Your task to perform on an android device: Open Google Chrome Image 0: 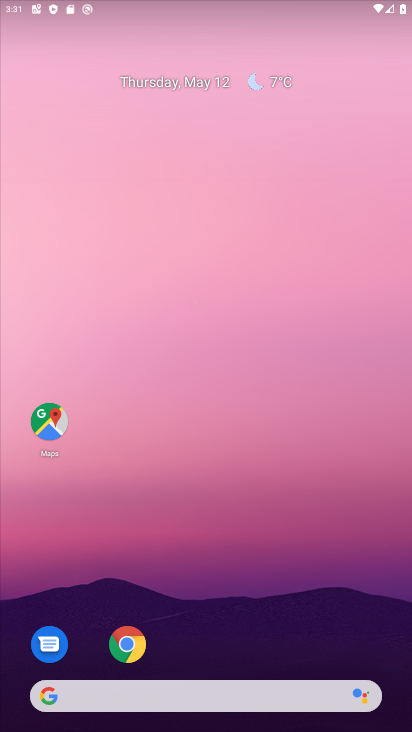
Step 0: drag from (235, 634) to (239, 90)
Your task to perform on an android device: Open Google Chrome Image 1: 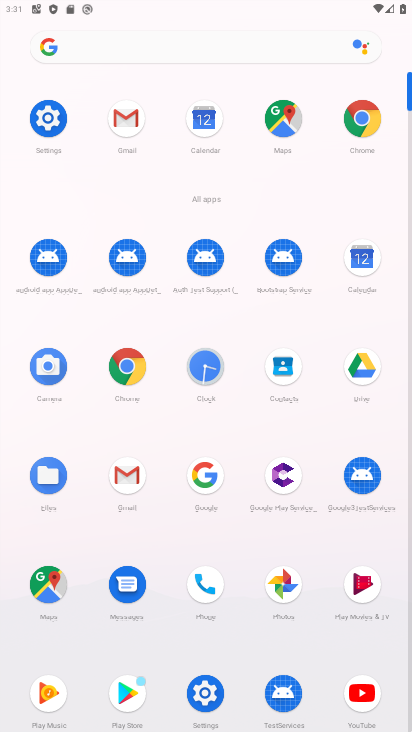
Step 1: click (360, 113)
Your task to perform on an android device: Open Google Chrome Image 2: 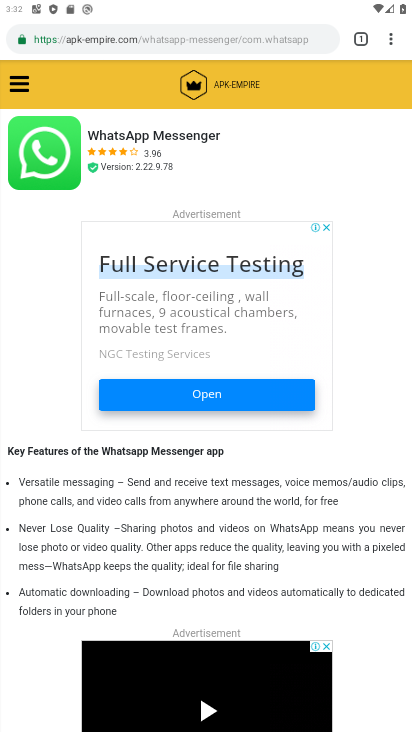
Step 2: click (356, 28)
Your task to perform on an android device: Open Google Chrome Image 3: 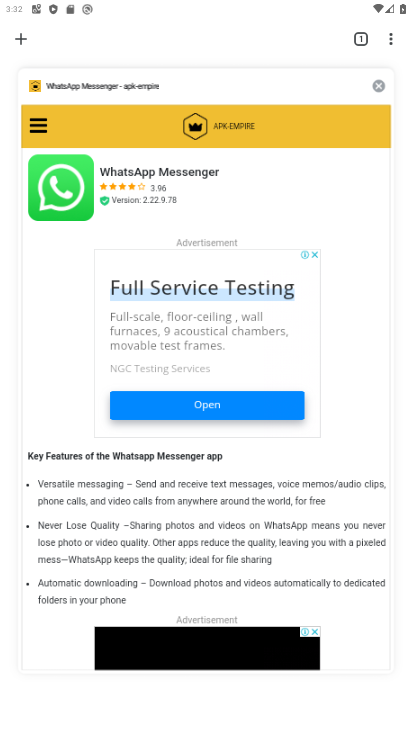
Step 3: click (377, 81)
Your task to perform on an android device: Open Google Chrome Image 4: 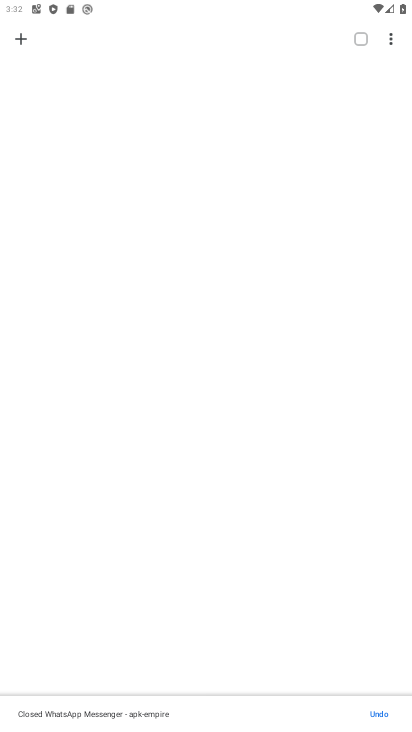
Step 4: click (26, 30)
Your task to perform on an android device: Open Google Chrome Image 5: 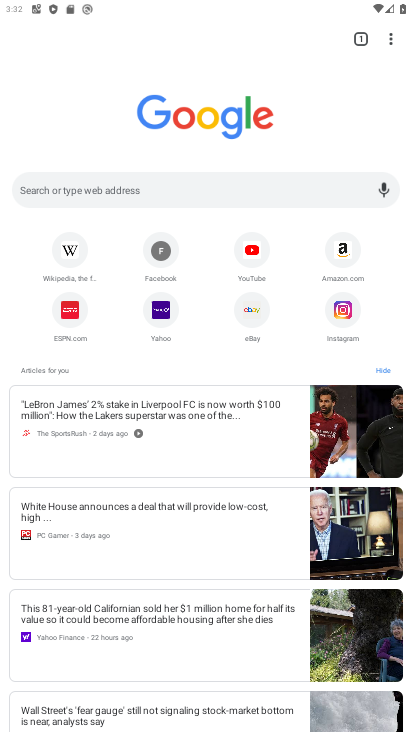
Step 5: task complete